Your task to perform on an android device: turn pop-ups off in chrome Image 0: 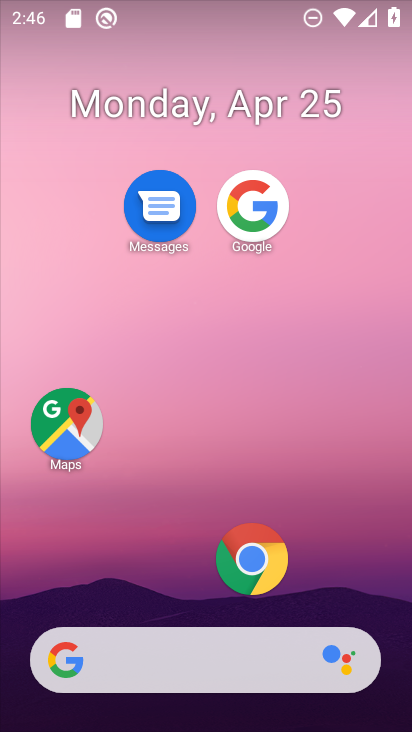
Step 0: click (252, 555)
Your task to perform on an android device: turn pop-ups off in chrome Image 1: 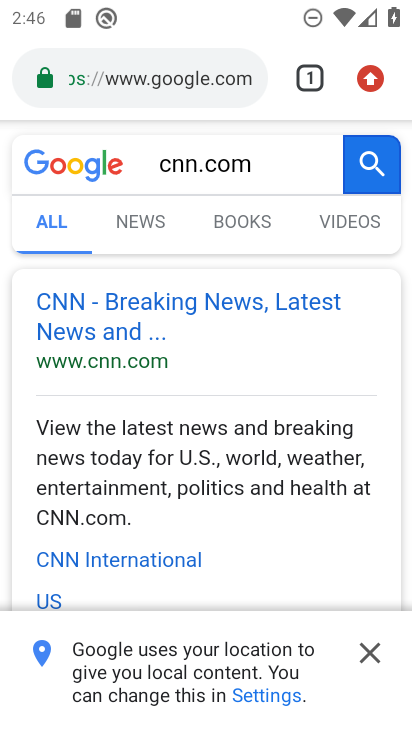
Step 1: click (368, 80)
Your task to perform on an android device: turn pop-ups off in chrome Image 2: 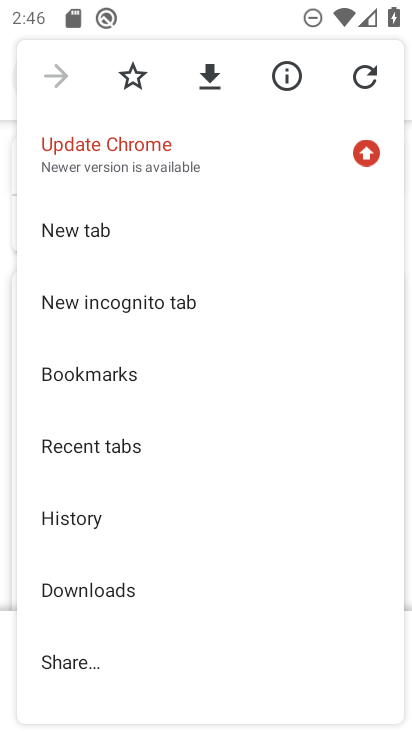
Step 2: drag from (224, 606) to (208, 127)
Your task to perform on an android device: turn pop-ups off in chrome Image 3: 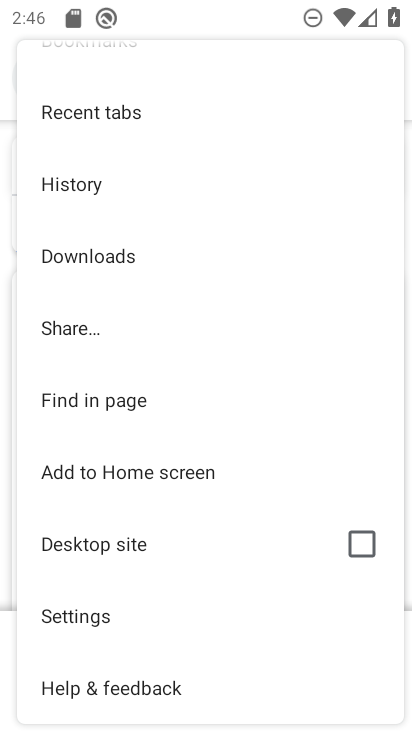
Step 3: click (84, 618)
Your task to perform on an android device: turn pop-ups off in chrome Image 4: 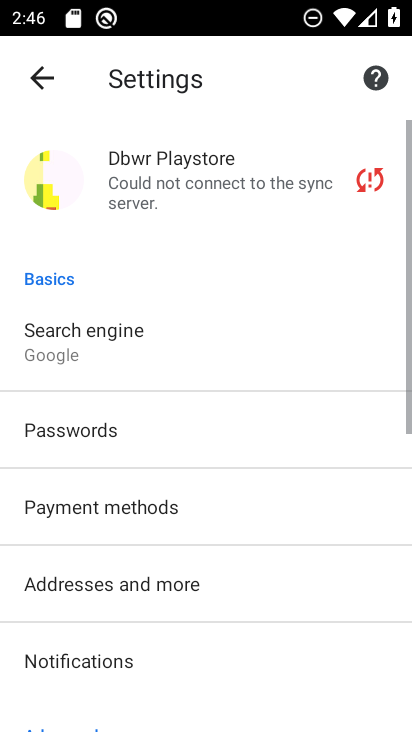
Step 4: drag from (164, 577) to (178, 199)
Your task to perform on an android device: turn pop-ups off in chrome Image 5: 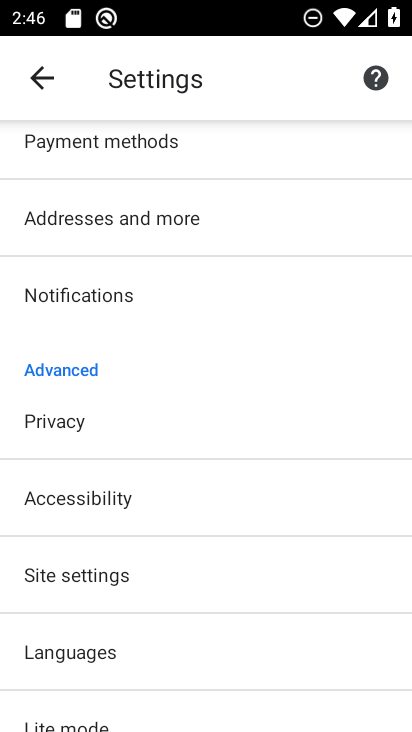
Step 5: click (61, 560)
Your task to perform on an android device: turn pop-ups off in chrome Image 6: 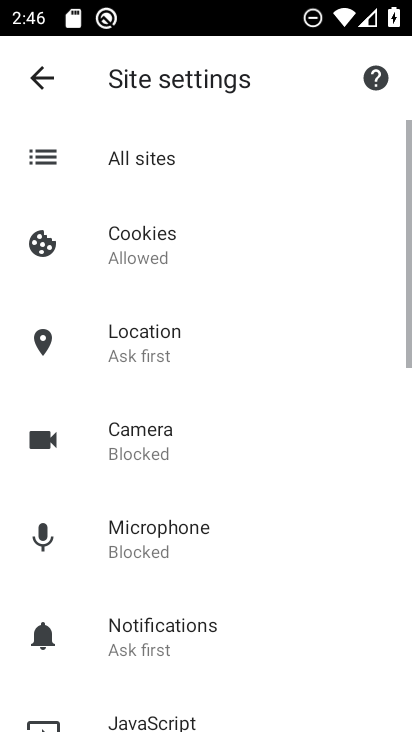
Step 6: drag from (245, 655) to (239, 133)
Your task to perform on an android device: turn pop-ups off in chrome Image 7: 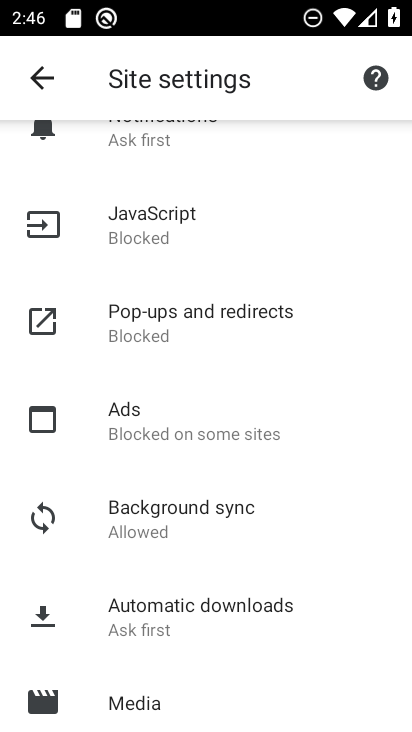
Step 7: click (148, 319)
Your task to perform on an android device: turn pop-ups off in chrome Image 8: 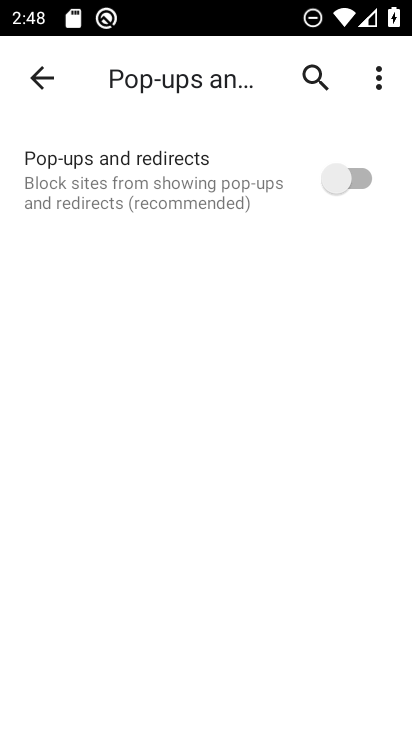
Step 8: task complete